Your task to perform on an android device: turn on wifi Image 0: 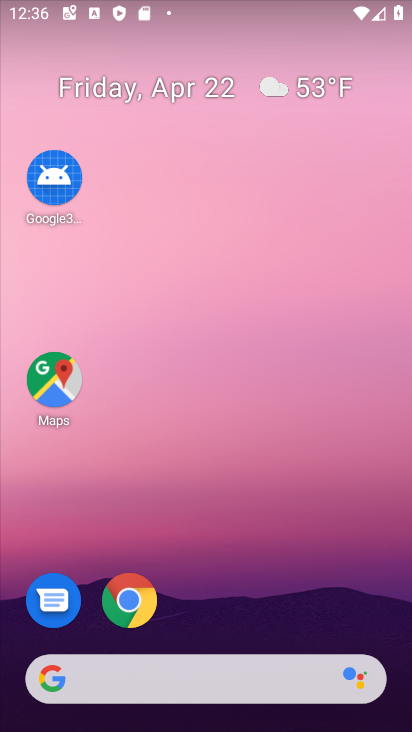
Step 0: drag from (207, 549) to (189, 85)
Your task to perform on an android device: turn on wifi Image 1: 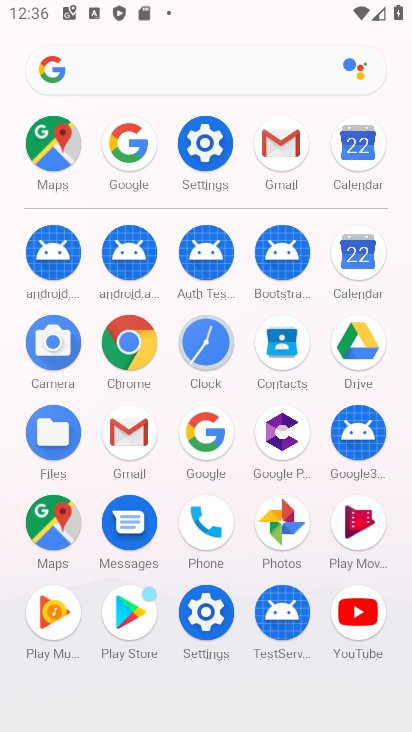
Step 1: click (211, 145)
Your task to perform on an android device: turn on wifi Image 2: 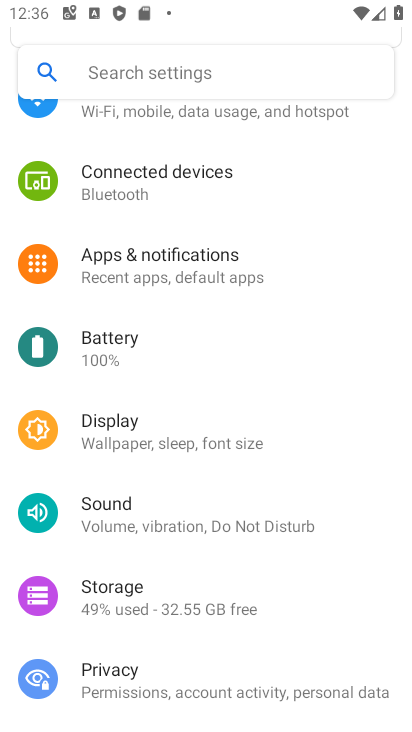
Step 2: click (208, 116)
Your task to perform on an android device: turn on wifi Image 3: 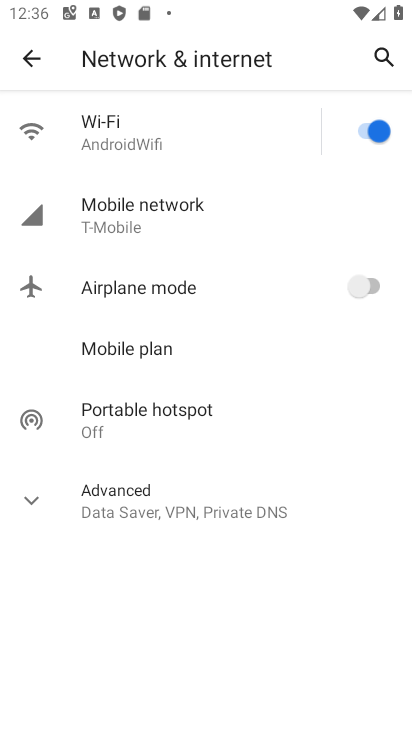
Step 3: click (162, 121)
Your task to perform on an android device: turn on wifi Image 4: 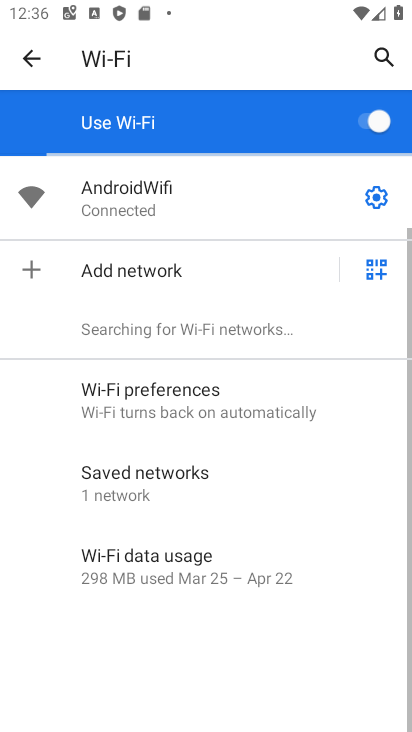
Step 4: task complete